Your task to perform on an android device: Go to display settings Image 0: 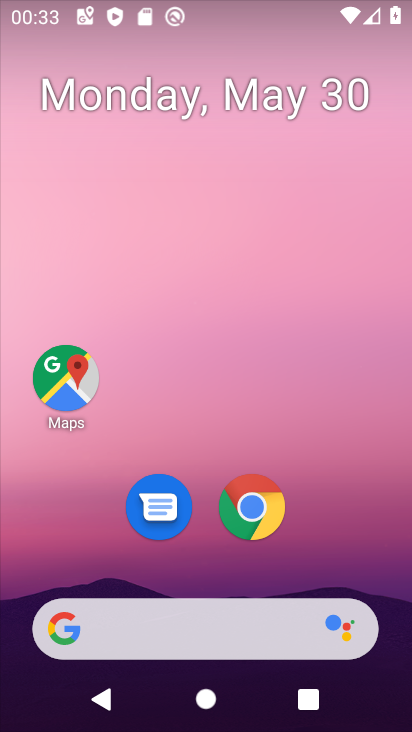
Step 0: drag from (331, 488) to (270, 145)
Your task to perform on an android device: Go to display settings Image 1: 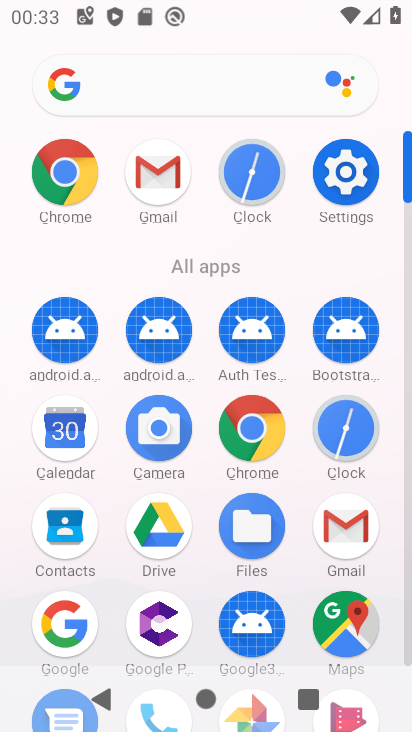
Step 1: click (338, 164)
Your task to perform on an android device: Go to display settings Image 2: 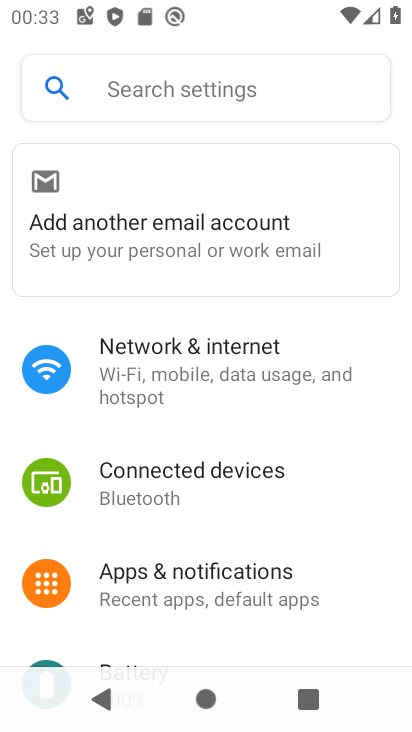
Step 2: drag from (243, 566) to (243, 191)
Your task to perform on an android device: Go to display settings Image 3: 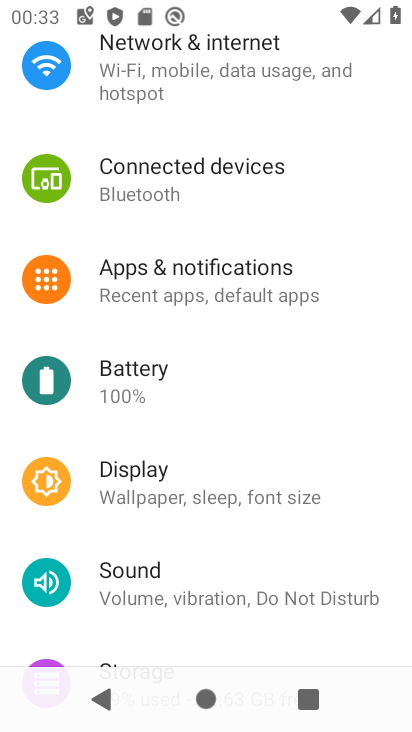
Step 3: click (178, 489)
Your task to perform on an android device: Go to display settings Image 4: 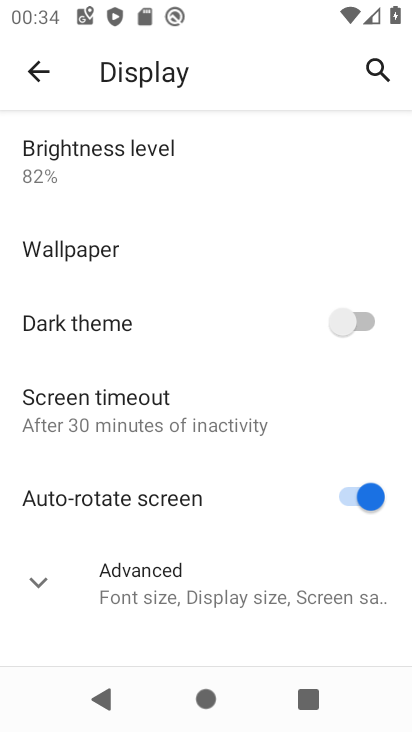
Step 4: task complete